Your task to perform on an android device: search for starred emails in the gmail app Image 0: 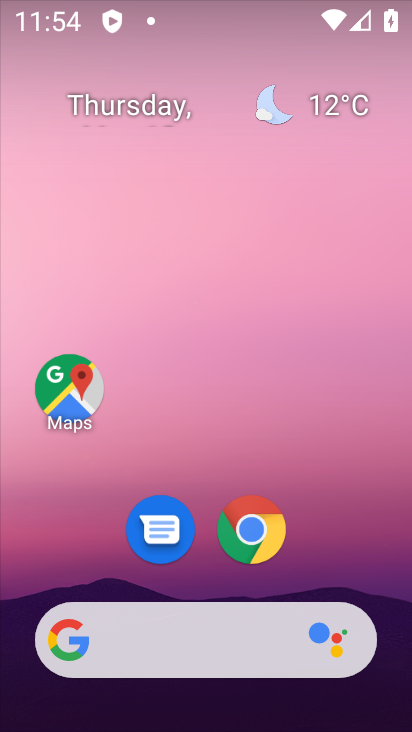
Step 0: drag from (312, 557) to (327, 216)
Your task to perform on an android device: search for starred emails in the gmail app Image 1: 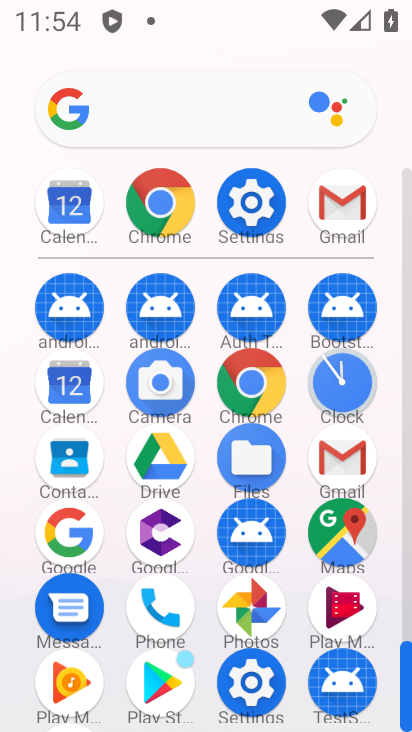
Step 1: click (332, 207)
Your task to perform on an android device: search for starred emails in the gmail app Image 2: 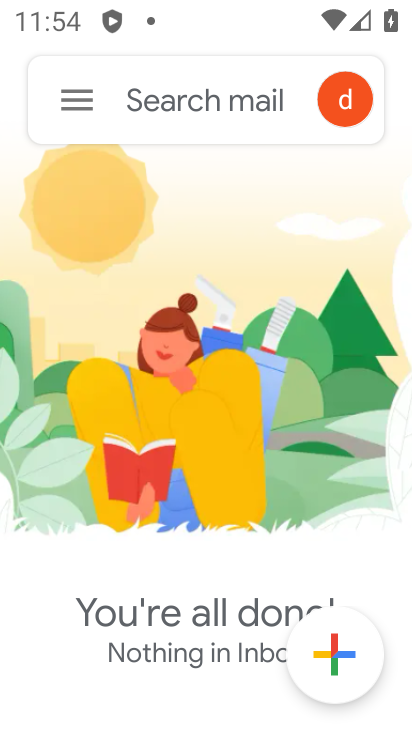
Step 2: click (61, 101)
Your task to perform on an android device: search for starred emails in the gmail app Image 3: 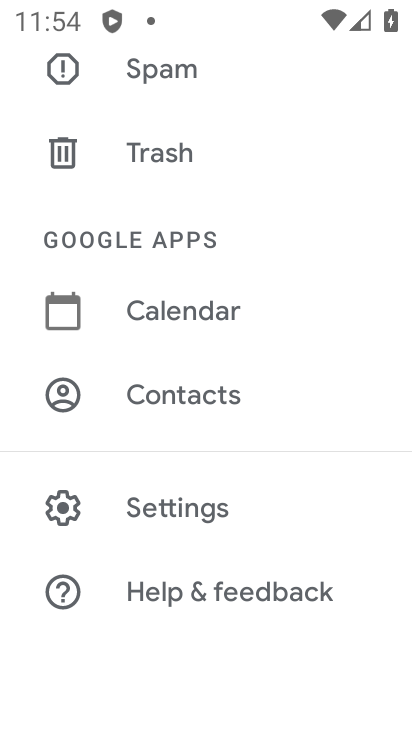
Step 3: drag from (185, 134) to (189, 563)
Your task to perform on an android device: search for starred emails in the gmail app Image 4: 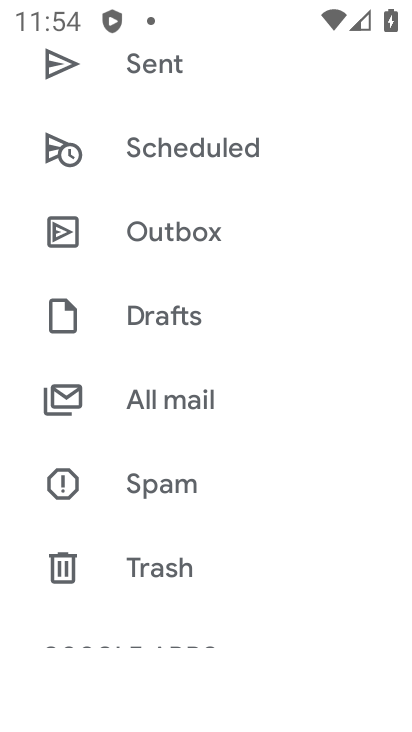
Step 4: drag from (173, 207) to (214, 548)
Your task to perform on an android device: search for starred emails in the gmail app Image 5: 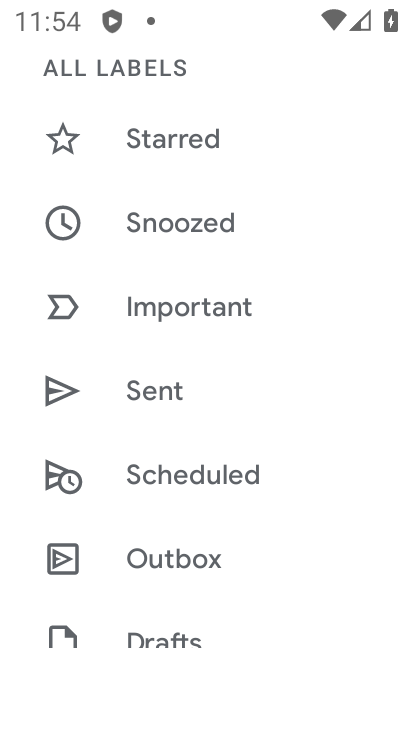
Step 5: drag from (254, 126) to (248, 410)
Your task to perform on an android device: search for starred emails in the gmail app Image 6: 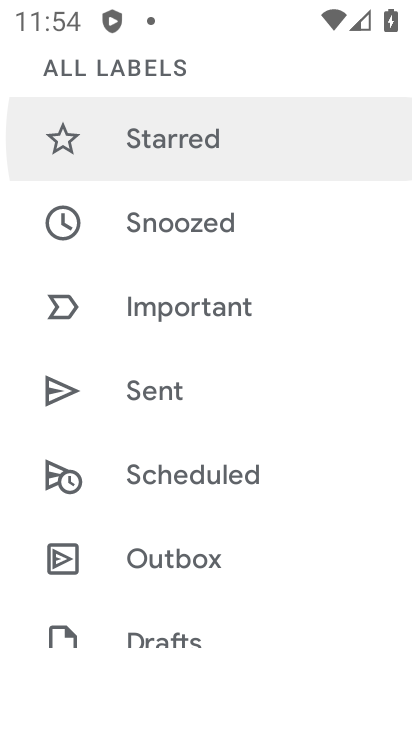
Step 6: drag from (208, 164) to (208, 465)
Your task to perform on an android device: search for starred emails in the gmail app Image 7: 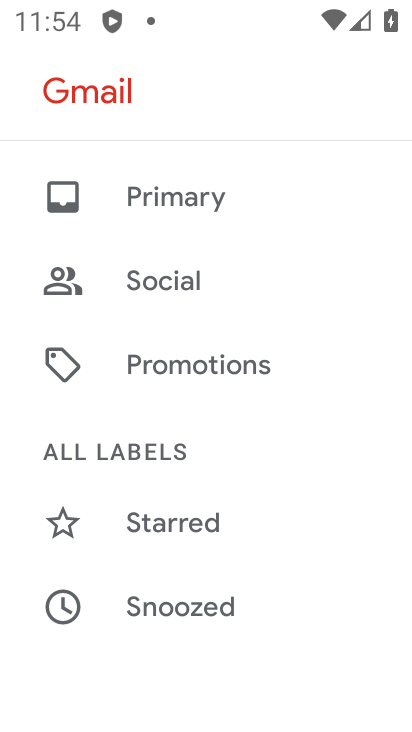
Step 7: drag from (154, 93) to (164, 366)
Your task to perform on an android device: search for starred emails in the gmail app Image 8: 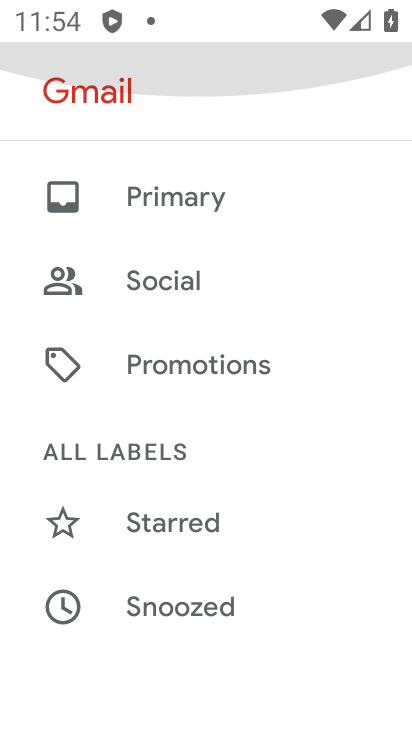
Step 8: drag from (107, 151) to (135, 385)
Your task to perform on an android device: search for starred emails in the gmail app Image 9: 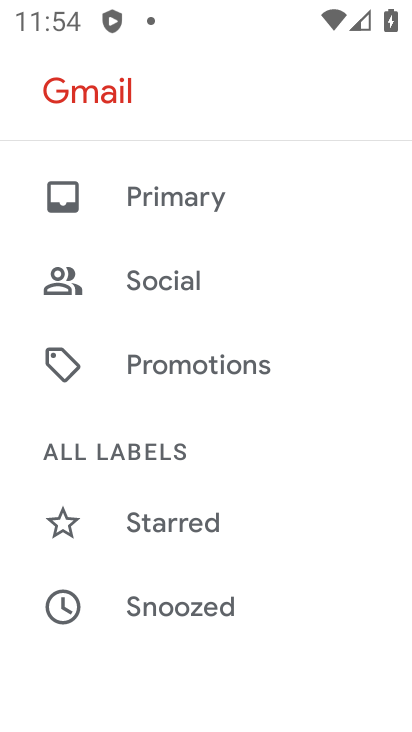
Step 9: drag from (162, 241) to (158, 481)
Your task to perform on an android device: search for starred emails in the gmail app Image 10: 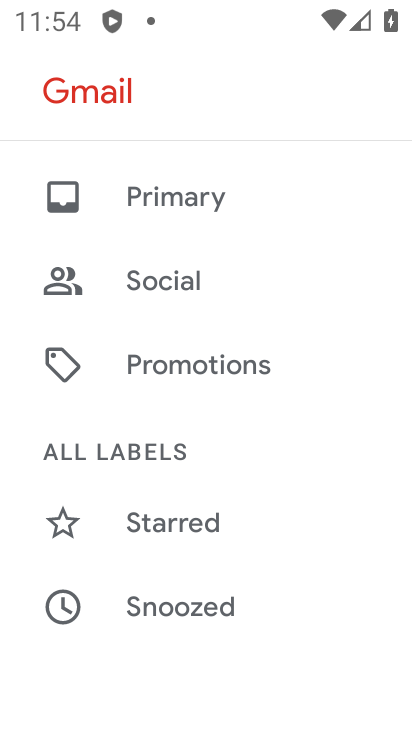
Step 10: click (155, 511)
Your task to perform on an android device: search for starred emails in the gmail app Image 11: 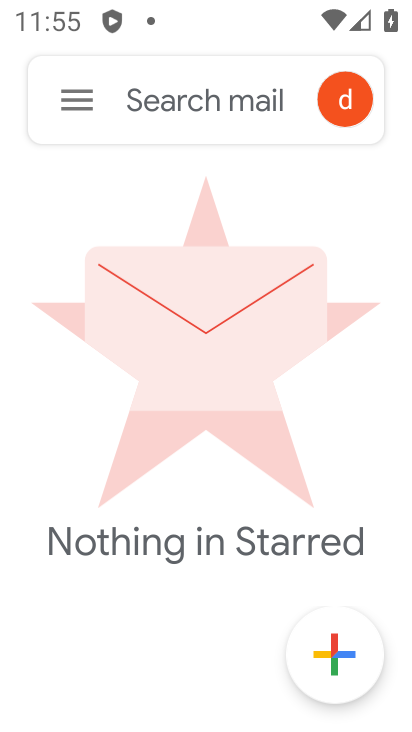
Step 11: click (97, 82)
Your task to perform on an android device: search for starred emails in the gmail app Image 12: 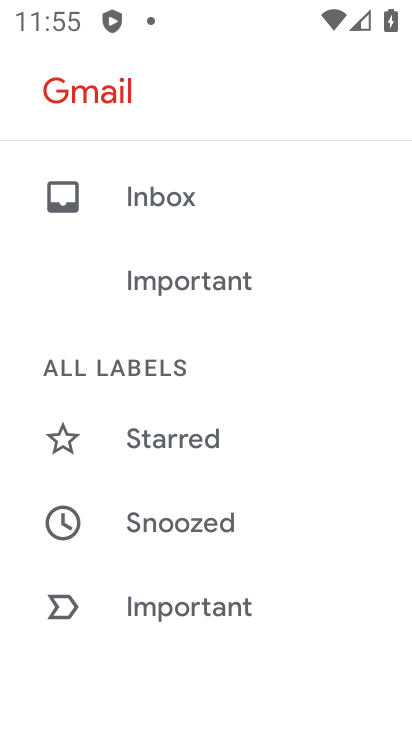
Step 12: click (202, 446)
Your task to perform on an android device: search for starred emails in the gmail app Image 13: 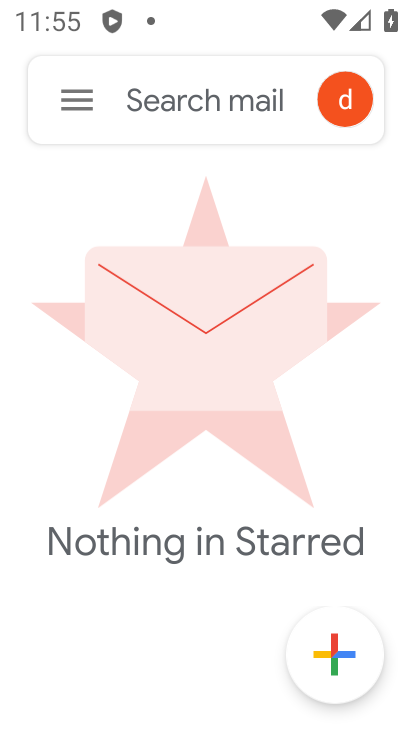
Step 13: task complete